Your task to perform on an android device: Open Google Image 0: 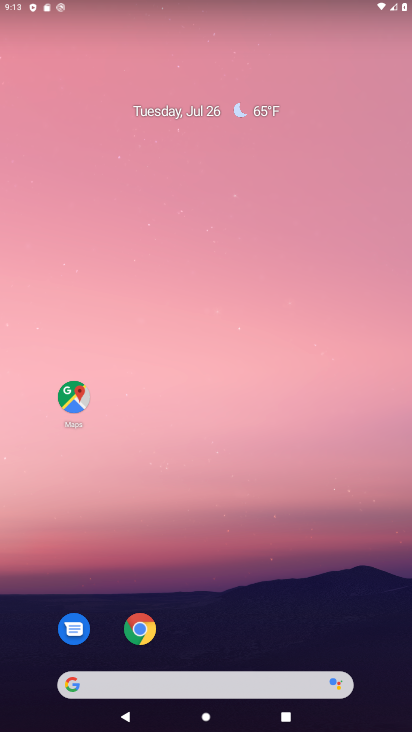
Step 0: drag from (332, 582) to (278, 120)
Your task to perform on an android device: Open Google Image 1: 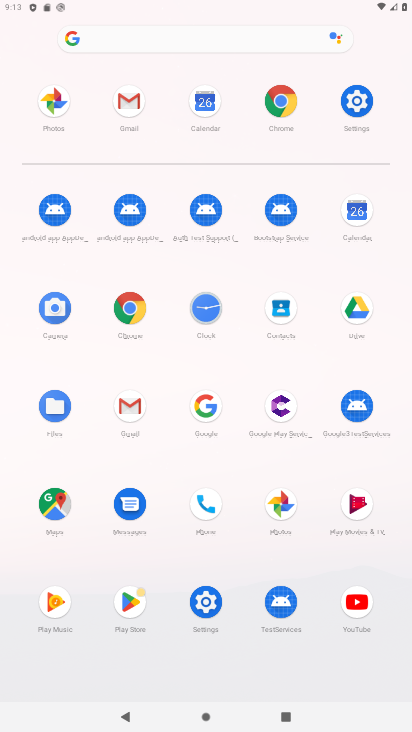
Step 1: click (212, 410)
Your task to perform on an android device: Open Google Image 2: 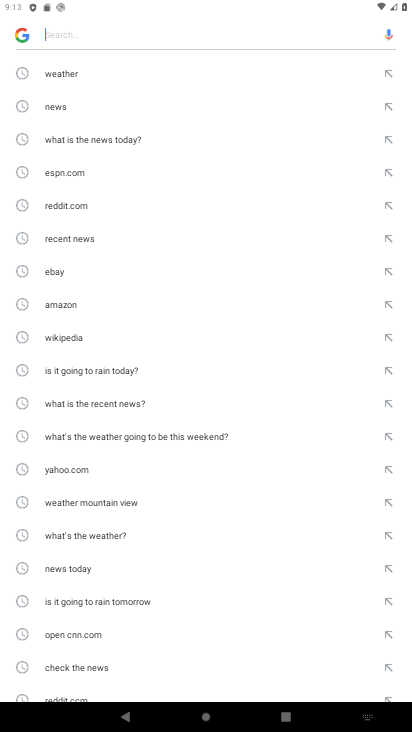
Step 2: task complete